Your task to perform on an android device: toggle translation in the chrome app Image 0: 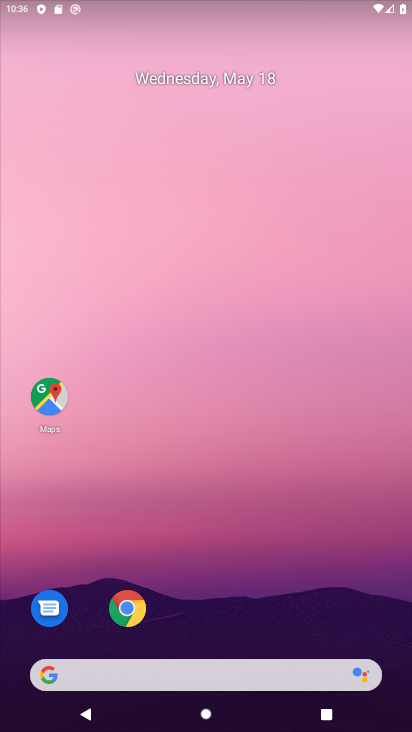
Step 0: press home button
Your task to perform on an android device: toggle translation in the chrome app Image 1: 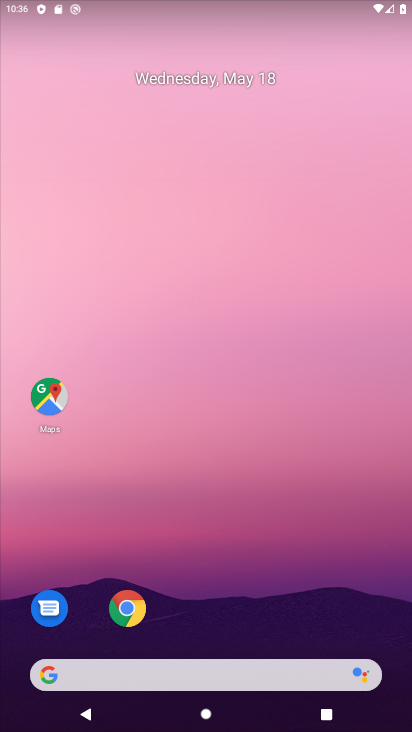
Step 1: click (128, 602)
Your task to perform on an android device: toggle translation in the chrome app Image 2: 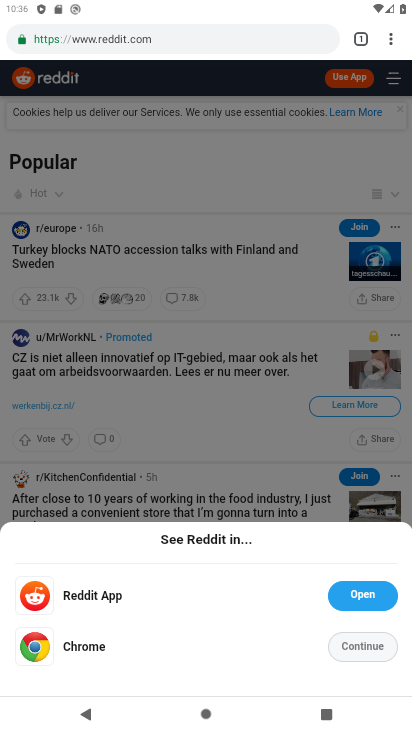
Step 2: drag from (380, 28) to (246, 459)
Your task to perform on an android device: toggle translation in the chrome app Image 3: 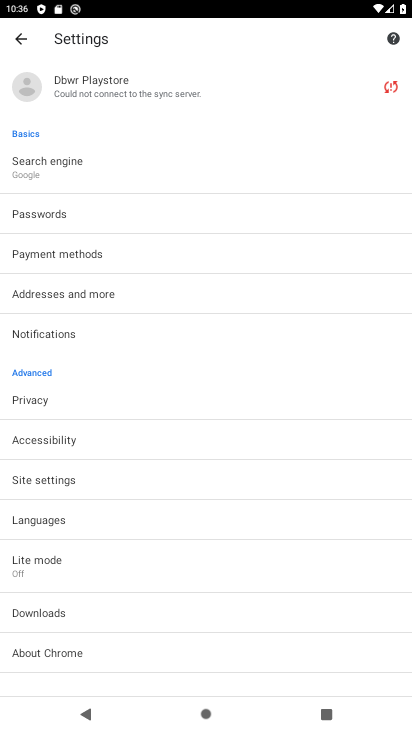
Step 3: click (21, 524)
Your task to perform on an android device: toggle translation in the chrome app Image 4: 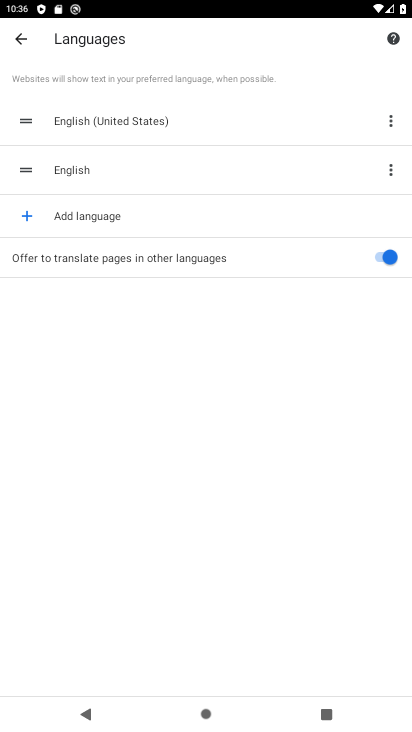
Step 4: click (350, 248)
Your task to perform on an android device: toggle translation in the chrome app Image 5: 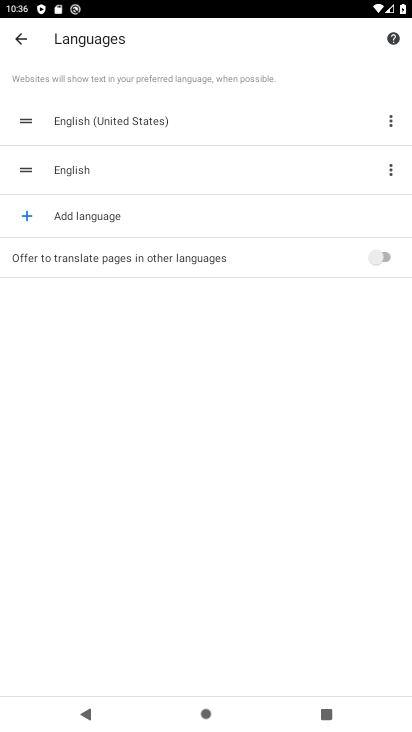
Step 5: task complete